Your task to perform on an android device: Open Google Chrome Image 0: 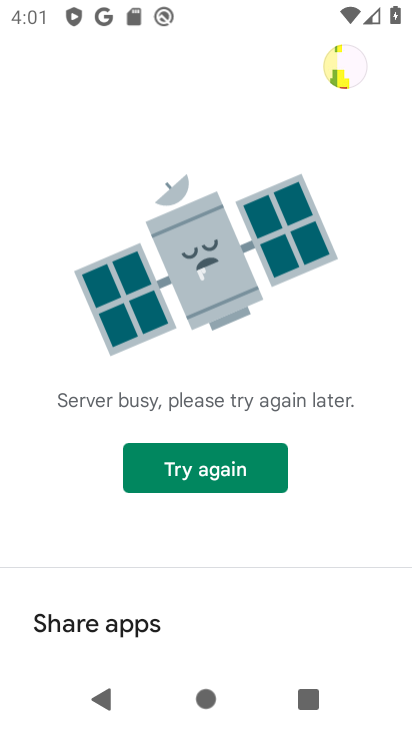
Step 0: press back button
Your task to perform on an android device: Open Google Chrome Image 1: 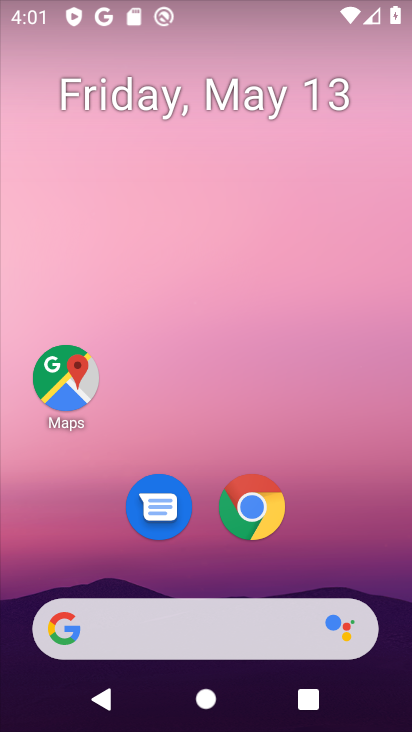
Step 1: click (263, 516)
Your task to perform on an android device: Open Google Chrome Image 2: 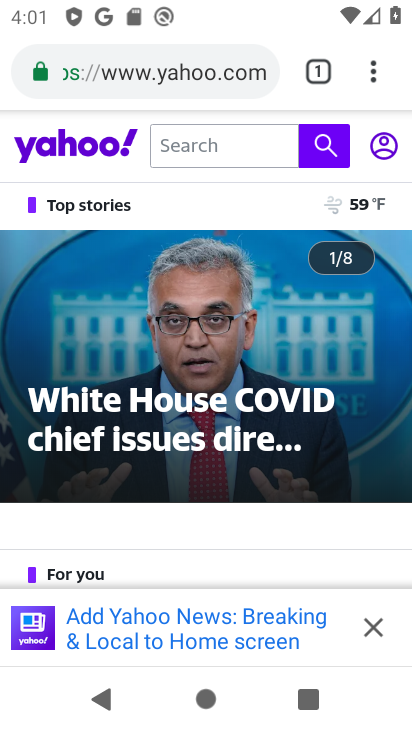
Step 2: task complete